Your task to perform on an android device: delete the emails in spam in the gmail app Image 0: 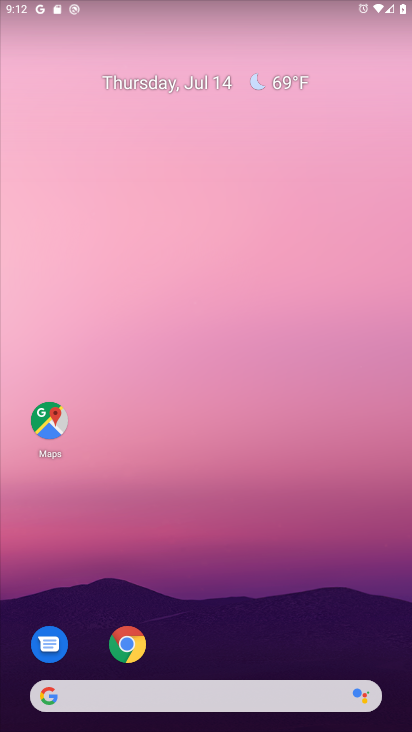
Step 0: drag from (195, 665) to (327, 137)
Your task to perform on an android device: delete the emails in spam in the gmail app Image 1: 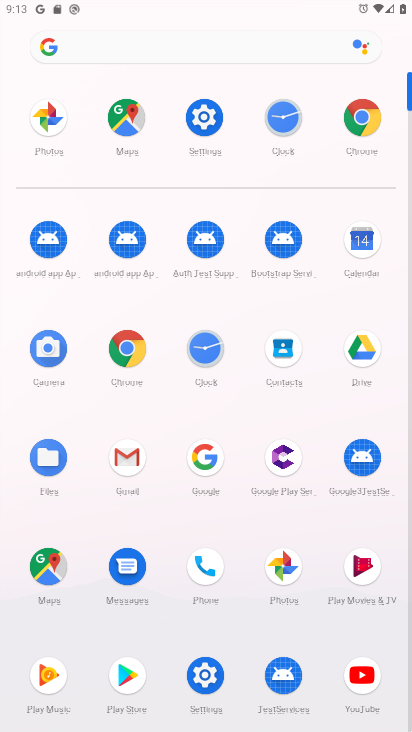
Step 1: click (112, 465)
Your task to perform on an android device: delete the emails in spam in the gmail app Image 2: 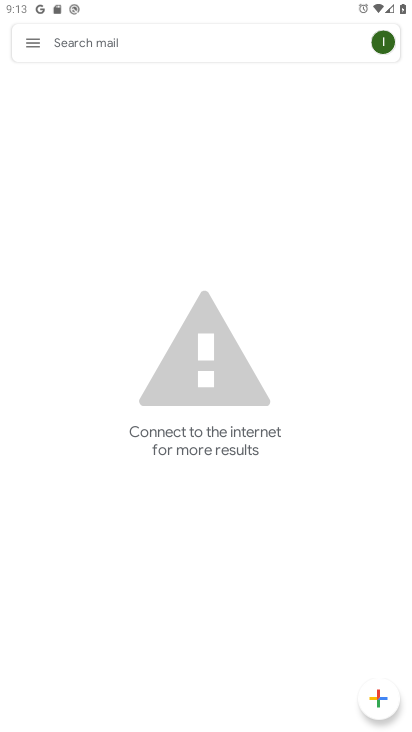
Step 2: click (23, 42)
Your task to perform on an android device: delete the emails in spam in the gmail app Image 3: 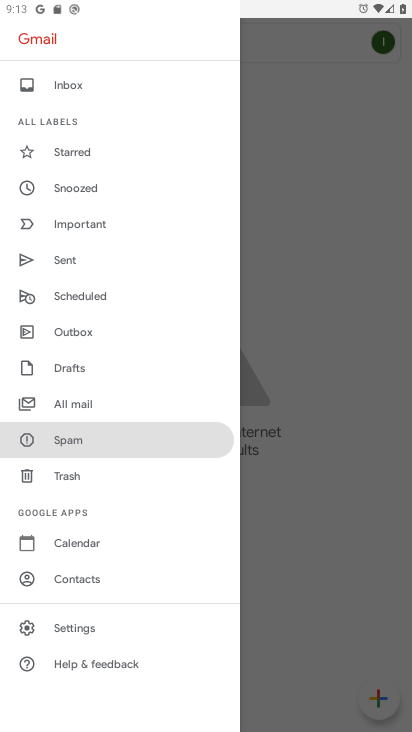
Step 3: click (330, 176)
Your task to perform on an android device: delete the emails in spam in the gmail app Image 4: 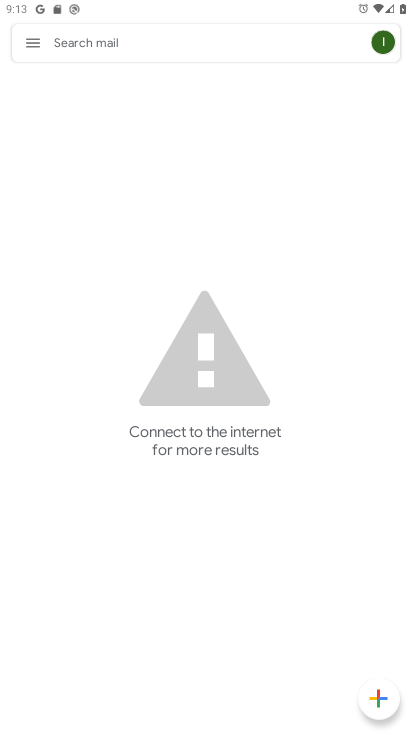
Step 4: task complete